Your task to perform on an android device: open app "Life360: Find Family & Friends" Image 0: 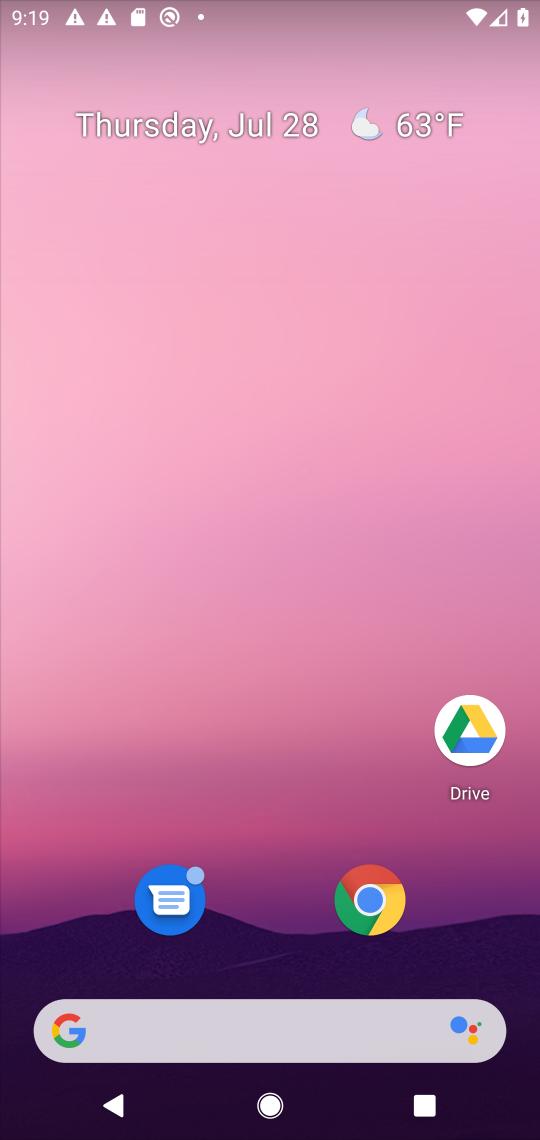
Step 0: press home button
Your task to perform on an android device: open app "Life360: Find Family & Friends" Image 1: 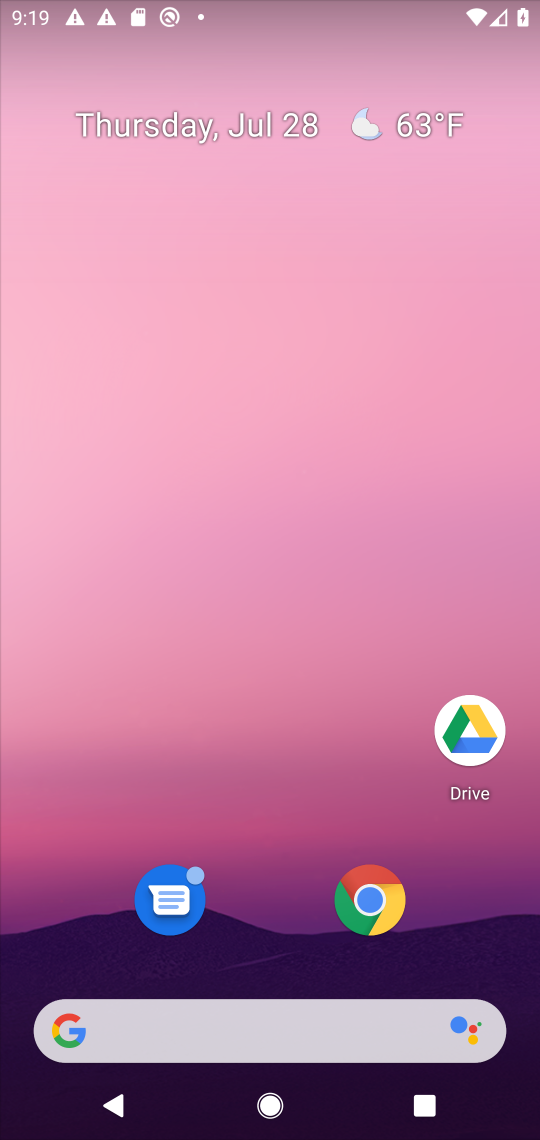
Step 1: task complete